Your task to perform on an android device: set the timer Image 0: 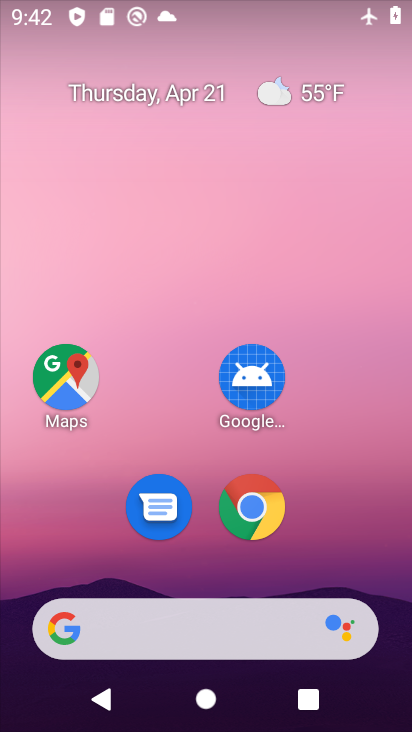
Step 0: drag from (326, 526) to (329, 203)
Your task to perform on an android device: set the timer Image 1: 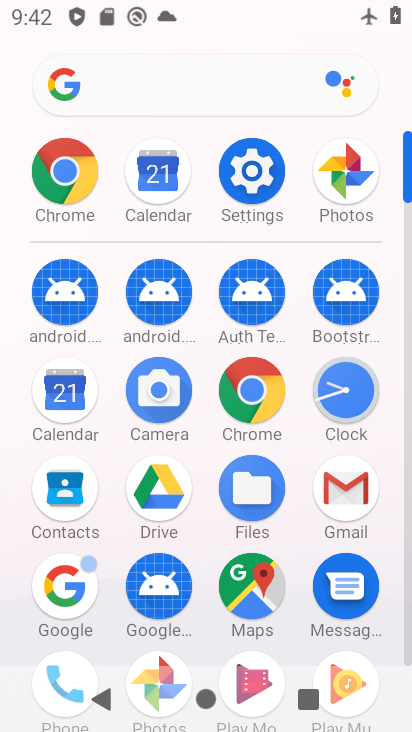
Step 1: click (344, 384)
Your task to perform on an android device: set the timer Image 2: 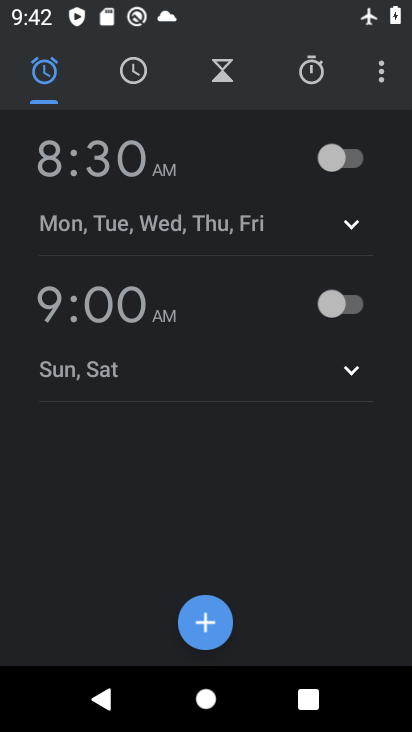
Step 2: click (132, 84)
Your task to perform on an android device: set the timer Image 3: 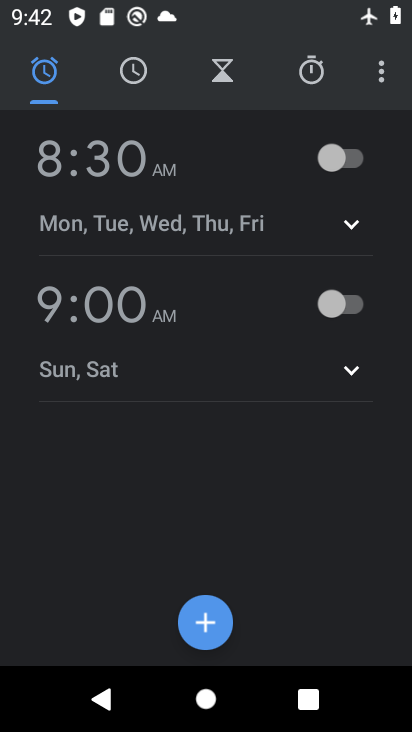
Step 3: click (217, 75)
Your task to perform on an android device: set the timer Image 4: 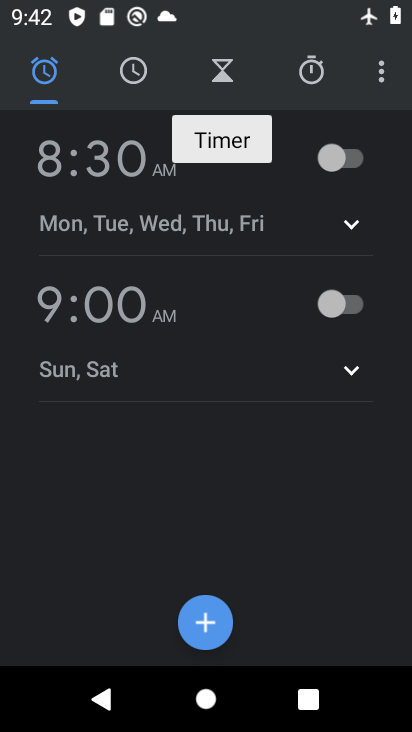
Step 4: click (217, 75)
Your task to perform on an android device: set the timer Image 5: 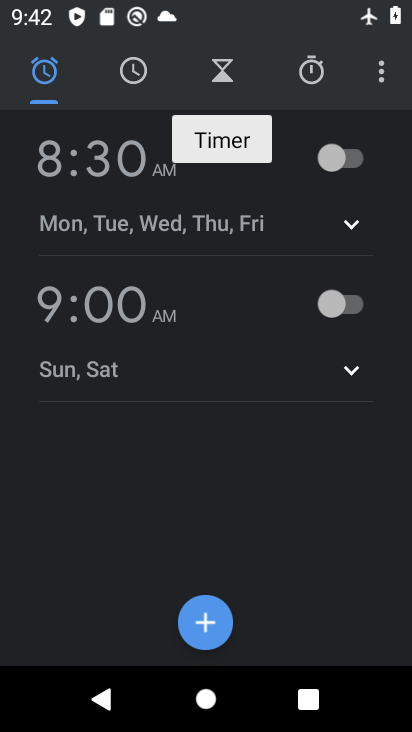
Step 5: click (229, 67)
Your task to perform on an android device: set the timer Image 6: 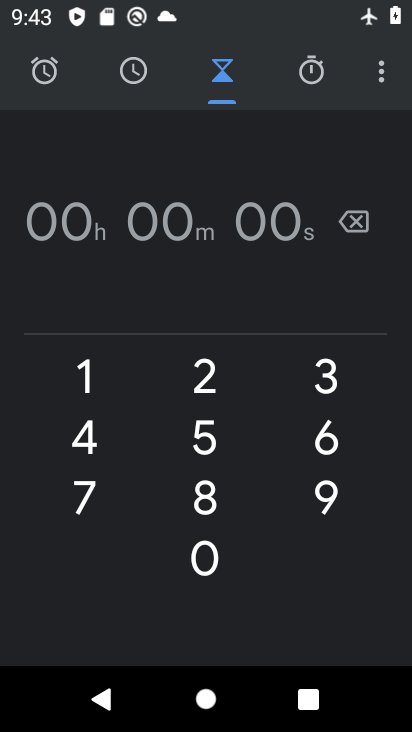
Step 6: click (43, 224)
Your task to perform on an android device: set the timer Image 7: 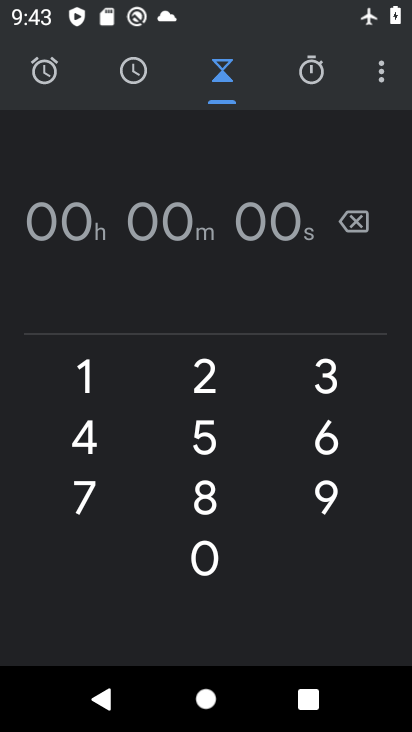
Step 7: type "09"
Your task to perform on an android device: set the timer Image 8: 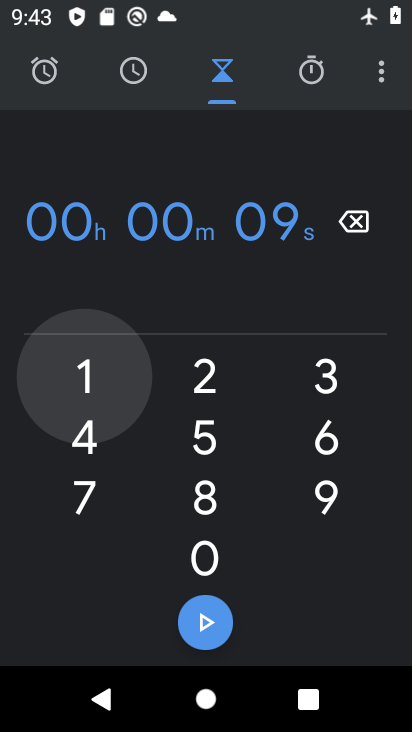
Step 8: type "99"
Your task to perform on an android device: set the timer Image 9: 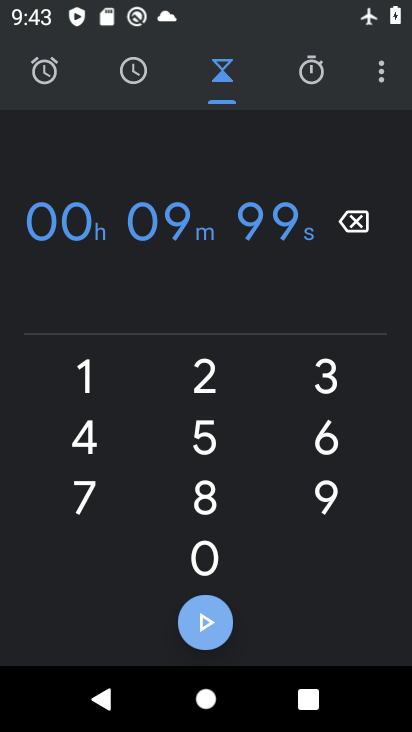
Step 9: type "00"
Your task to perform on an android device: set the timer Image 10: 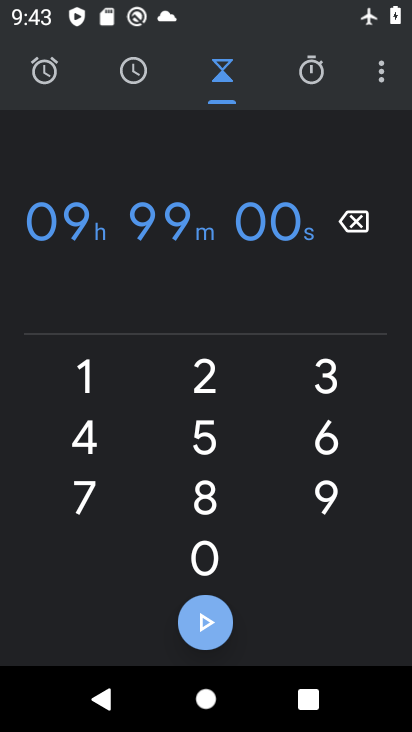
Step 10: click (209, 607)
Your task to perform on an android device: set the timer Image 11: 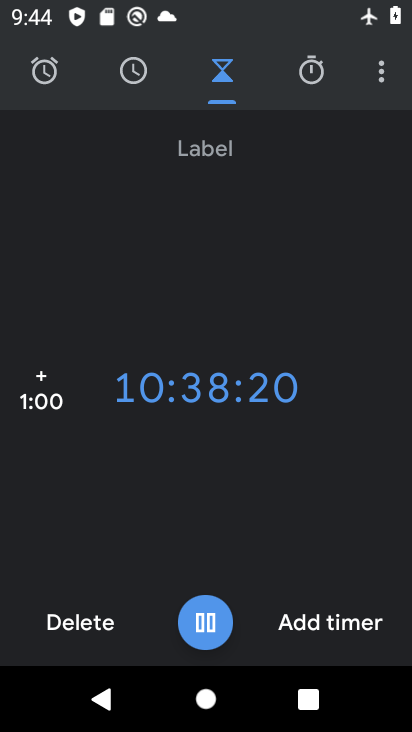
Step 11: task complete